Your task to perform on an android device: Open Google Maps Image 0: 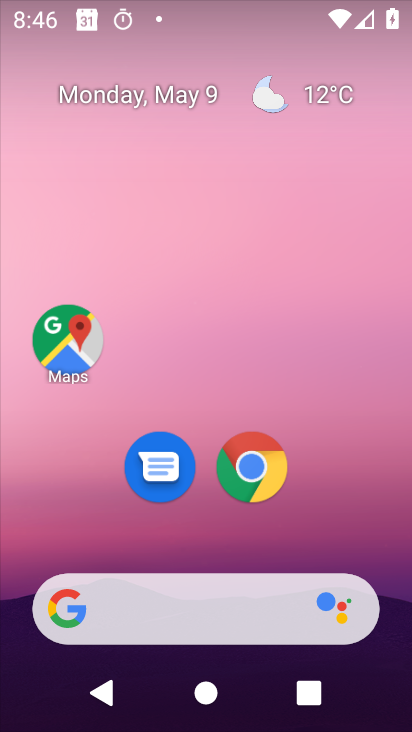
Step 0: click (68, 343)
Your task to perform on an android device: Open Google Maps Image 1: 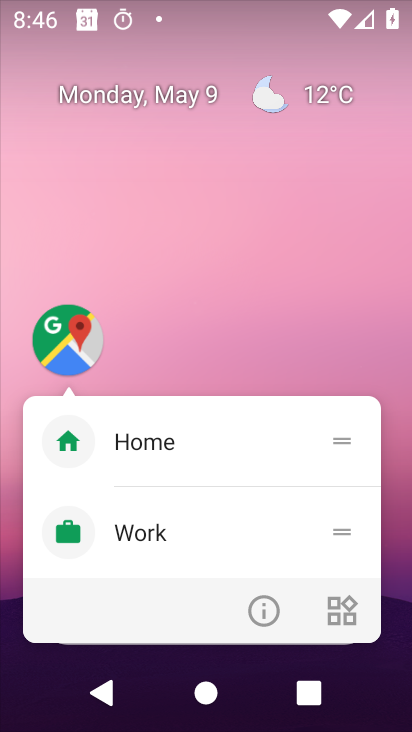
Step 1: click (70, 343)
Your task to perform on an android device: Open Google Maps Image 2: 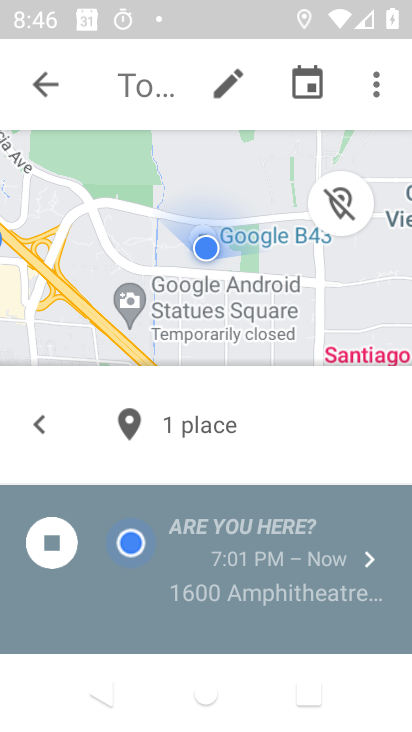
Step 2: click (29, 85)
Your task to perform on an android device: Open Google Maps Image 3: 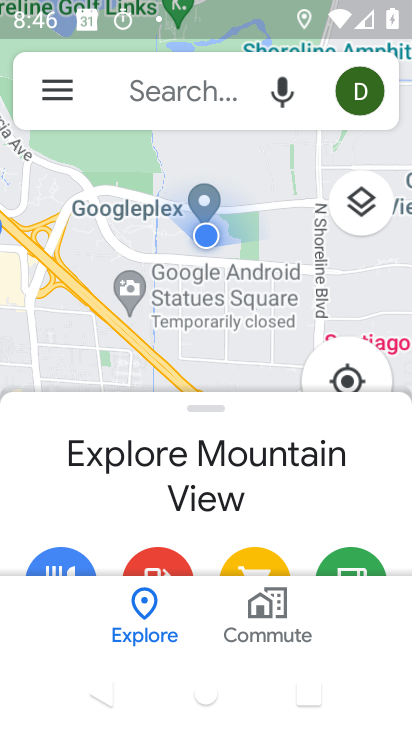
Step 3: task complete